Your task to perform on an android device: Search for sushi restaurants on Maps Image 0: 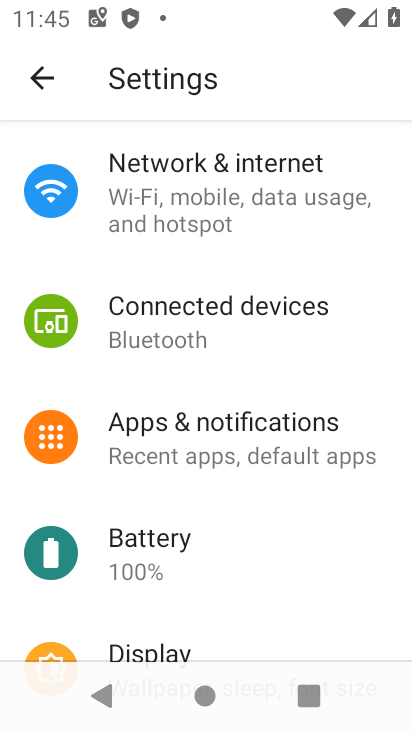
Step 0: press home button
Your task to perform on an android device: Search for sushi restaurants on Maps Image 1: 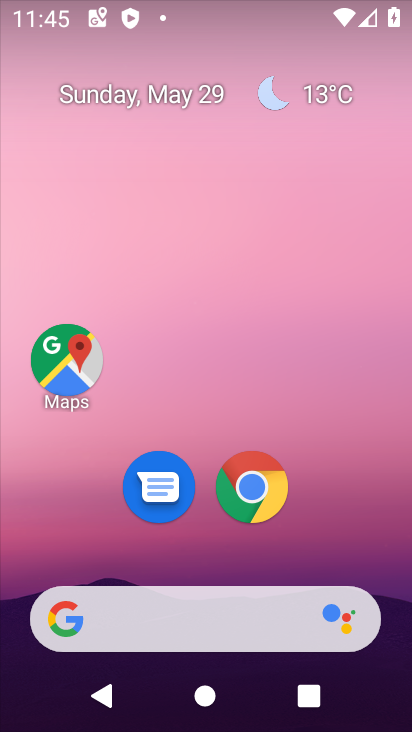
Step 1: click (73, 345)
Your task to perform on an android device: Search for sushi restaurants on Maps Image 2: 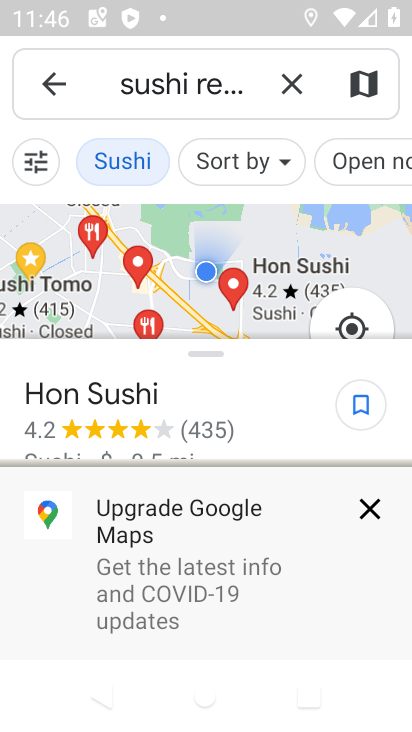
Step 2: task complete